Your task to perform on an android device: check the backup settings in the google photos Image 0: 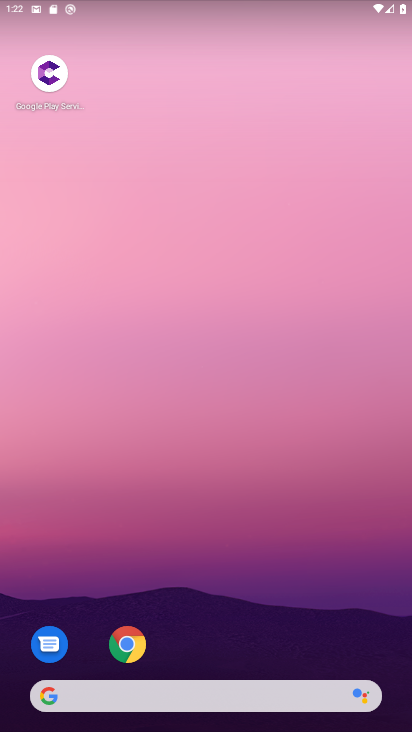
Step 0: drag from (379, 643) to (313, 20)
Your task to perform on an android device: check the backup settings in the google photos Image 1: 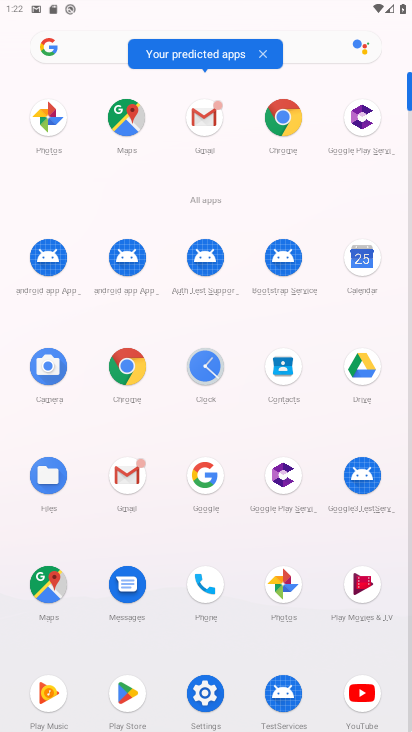
Step 1: click (283, 583)
Your task to perform on an android device: check the backup settings in the google photos Image 2: 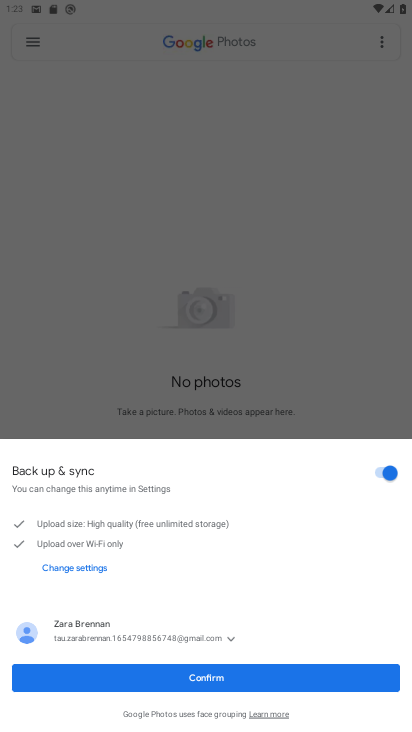
Step 2: click (364, 680)
Your task to perform on an android device: check the backup settings in the google photos Image 3: 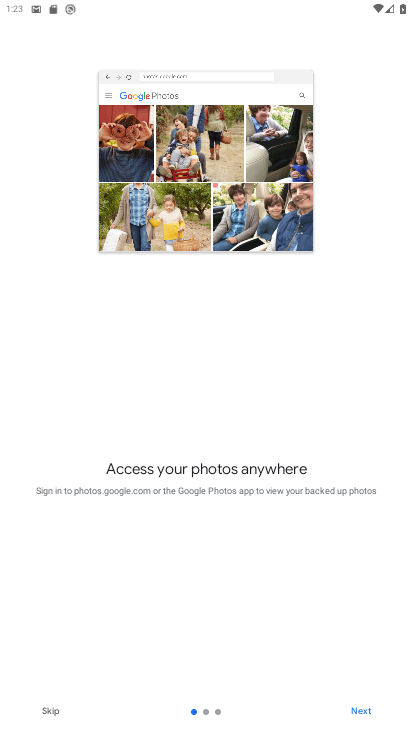
Step 3: task complete